Your task to perform on an android device: Open Yahoo.com Image 0: 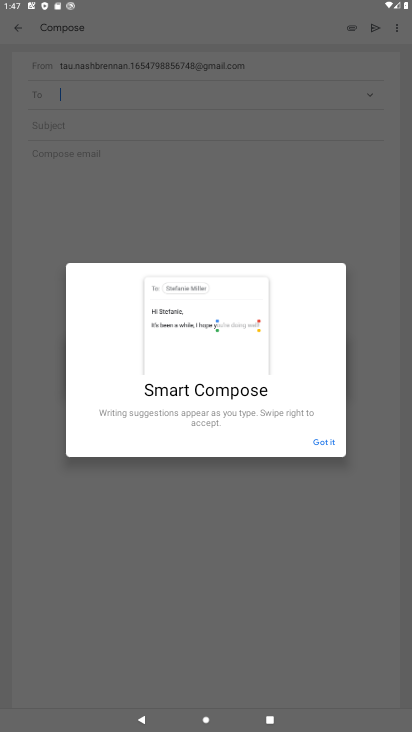
Step 0: press home button
Your task to perform on an android device: Open Yahoo.com Image 1: 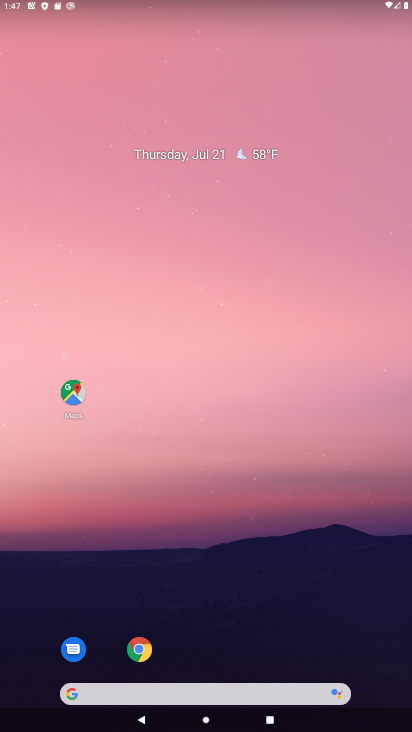
Step 1: click (138, 656)
Your task to perform on an android device: Open Yahoo.com Image 2: 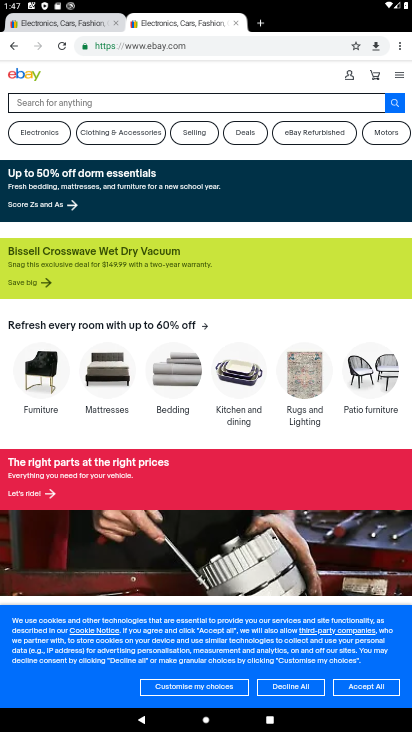
Step 2: click (196, 49)
Your task to perform on an android device: Open Yahoo.com Image 3: 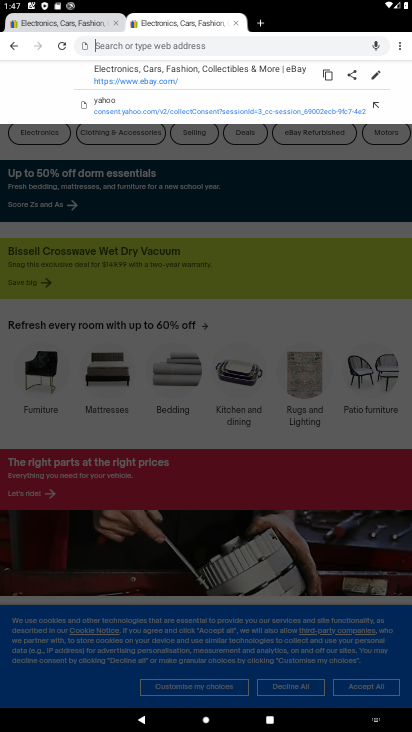
Step 3: type "yahoo.com"
Your task to perform on an android device: Open Yahoo.com Image 4: 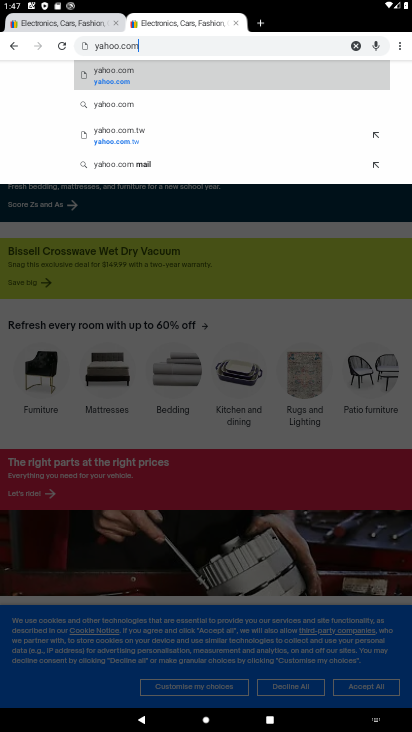
Step 4: click (157, 70)
Your task to perform on an android device: Open Yahoo.com Image 5: 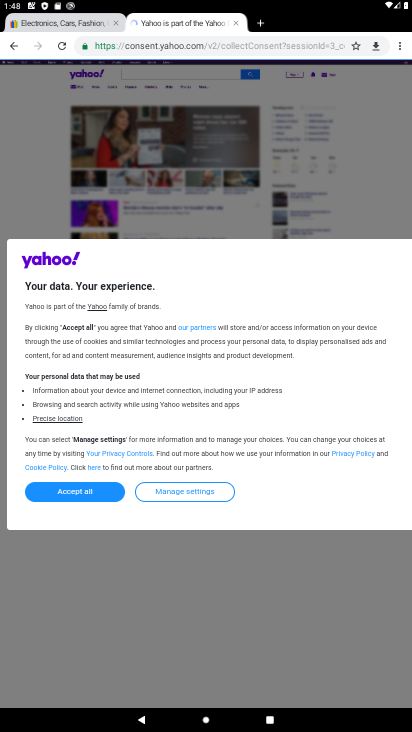
Step 5: task complete